Your task to perform on an android device: turn pop-ups on in chrome Image 0: 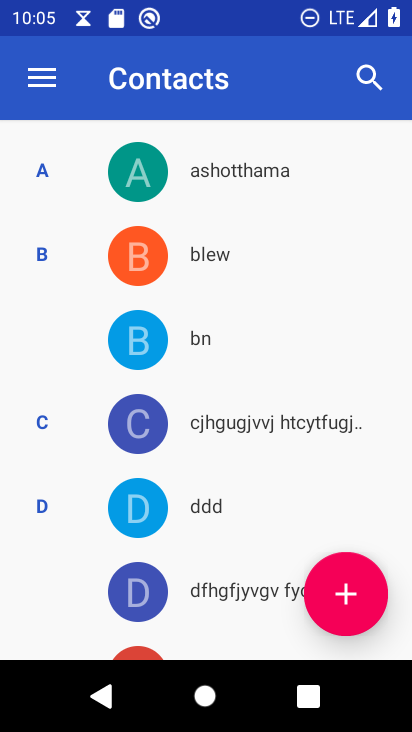
Step 0: press back button
Your task to perform on an android device: turn pop-ups on in chrome Image 1: 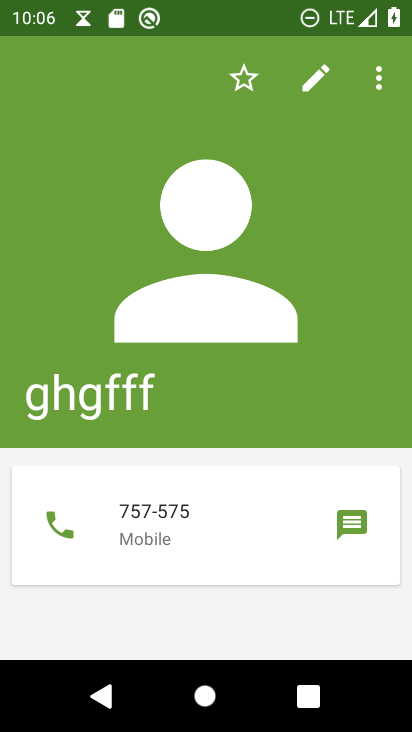
Step 1: press back button
Your task to perform on an android device: turn pop-ups on in chrome Image 2: 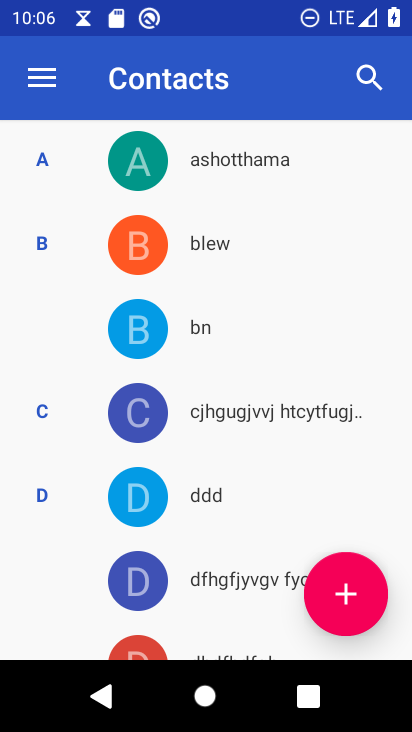
Step 2: press back button
Your task to perform on an android device: turn pop-ups on in chrome Image 3: 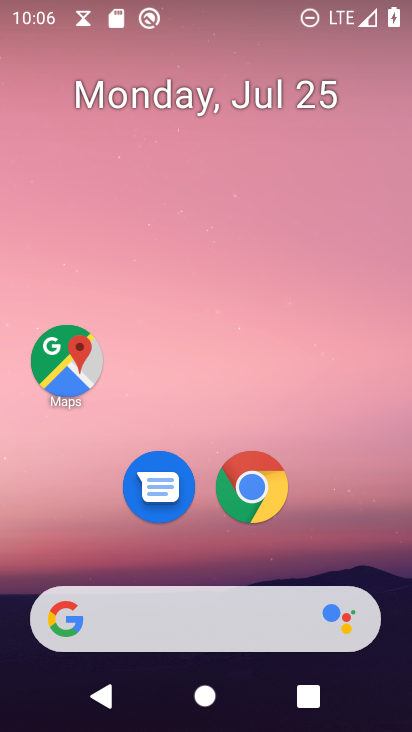
Step 3: click (251, 501)
Your task to perform on an android device: turn pop-ups on in chrome Image 4: 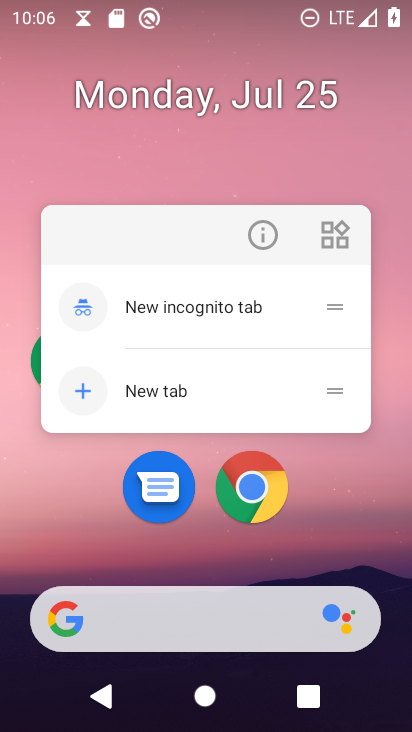
Step 4: click (274, 485)
Your task to perform on an android device: turn pop-ups on in chrome Image 5: 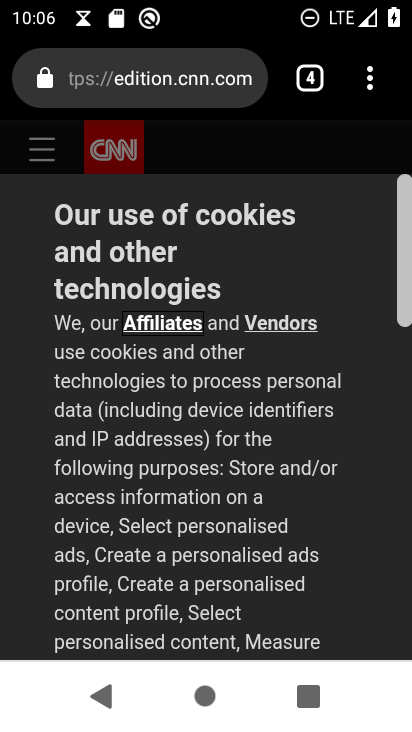
Step 5: drag from (368, 73) to (149, 545)
Your task to perform on an android device: turn pop-ups on in chrome Image 6: 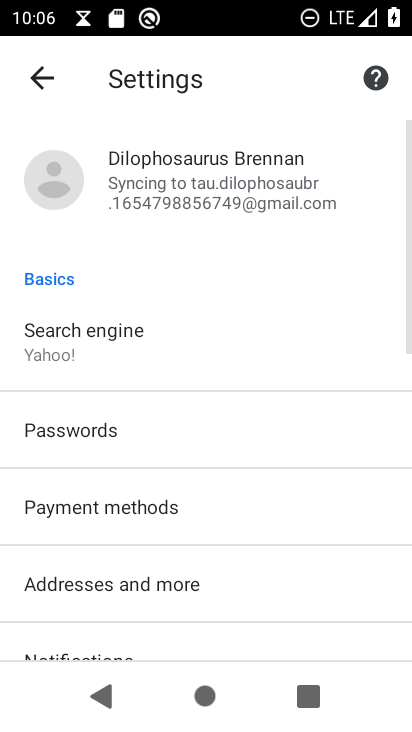
Step 6: drag from (148, 611) to (271, 65)
Your task to perform on an android device: turn pop-ups on in chrome Image 7: 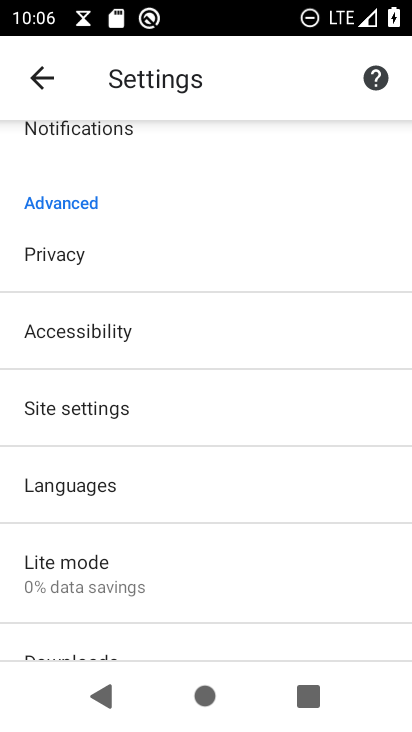
Step 7: click (119, 418)
Your task to perform on an android device: turn pop-ups on in chrome Image 8: 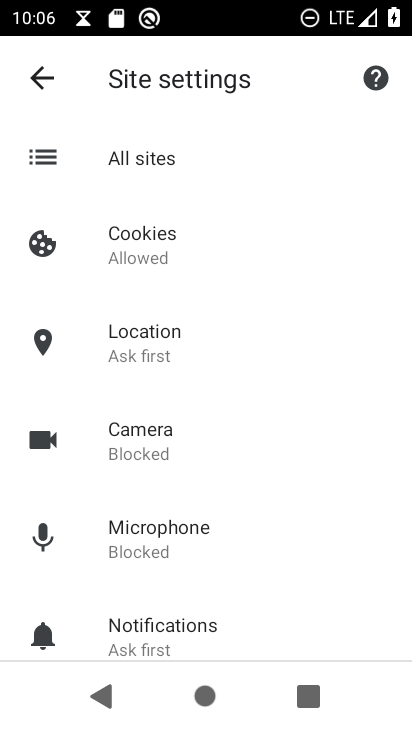
Step 8: drag from (153, 620) to (240, 115)
Your task to perform on an android device: turn pop-ups on in chrome Image 9: 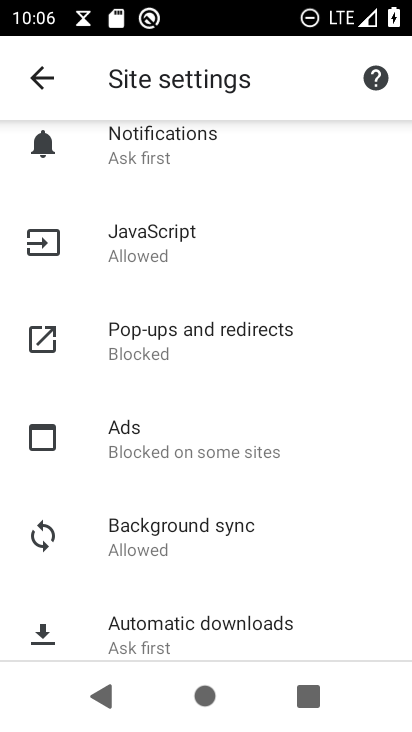
Step 9: click (195, 350)
Your task to perform on an android device: turn pop-ups on in chrome Image 10: 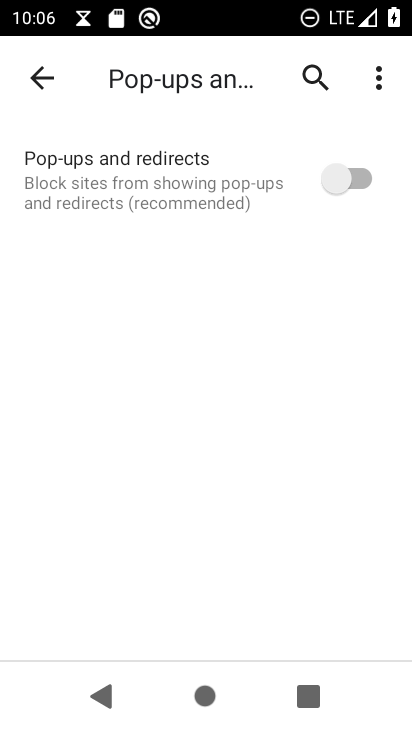
Step 10: click (341, 180)
Your task to perform on an android device: turn pop-ups on in chrome Image 11: 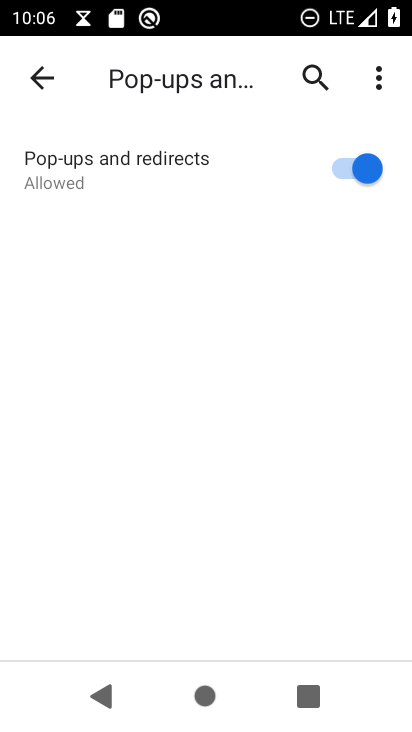
Step 11: task complete